Your task to perform on an android device: When is my next appointment? Image 0: 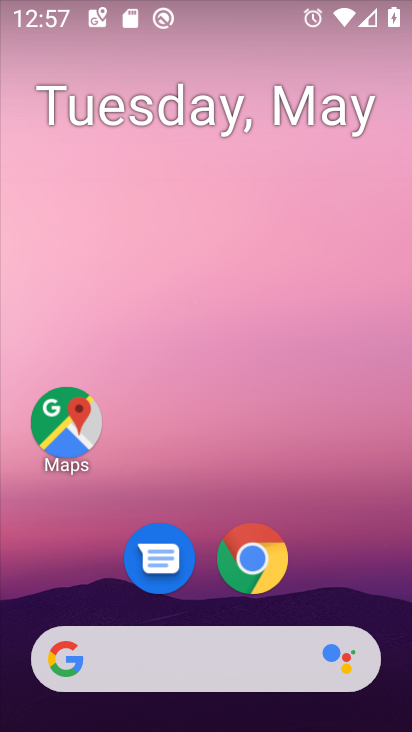
Step 0: drag from (387, 618) to (292, 93)
Your task to perform on an android device: When is my next appointment? Image 1: 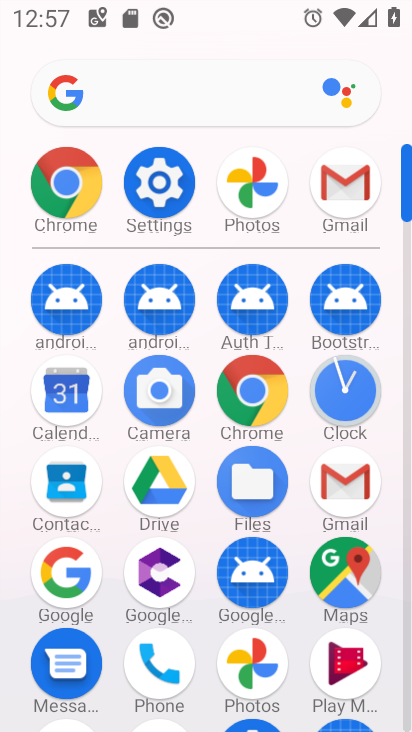
Step 1: click (72, 395)
Your task to perform on an android device: When is my next appointment? Image 2: 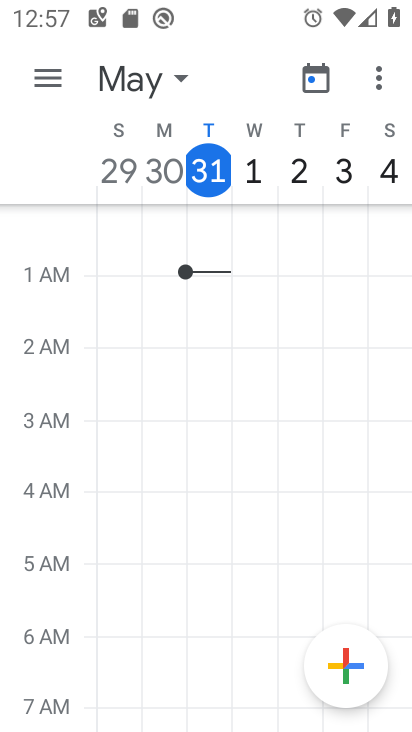
Step 2: click (56, 86)
Your task to perform on an android device: When is my next appointment? Image 3: 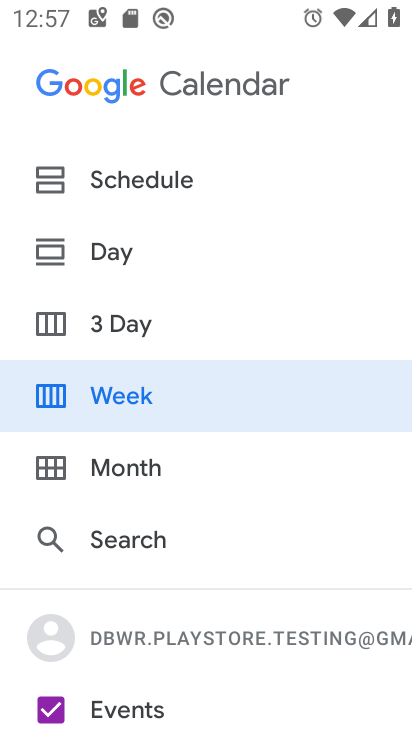
Step 3: click (113, 166)
Your task to perform on an android device: When is my next appointment? Image 4: 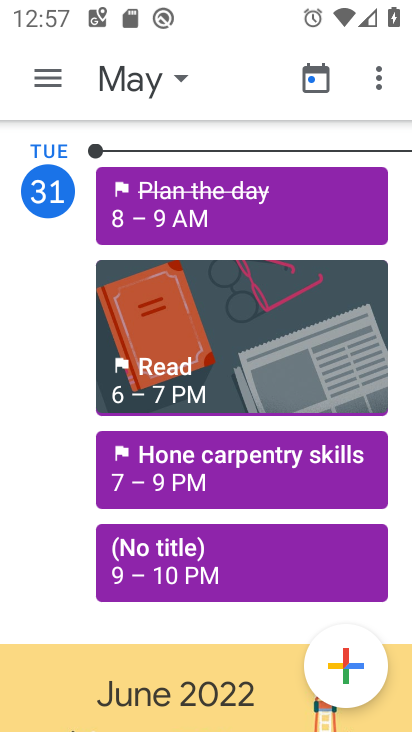
Step 4: task complete